Your task to perform on an android device: toggle sleep mode Image 0: 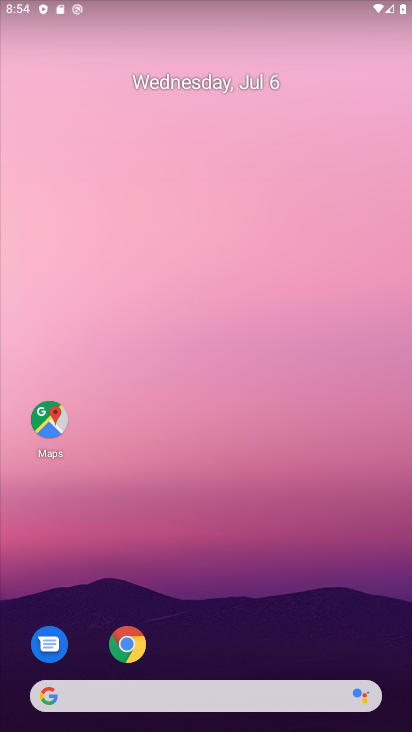
Step 0: drag from (252, 712) to (280, 119)
Your task to perform on an android device: toggle sleep mode Image 1: 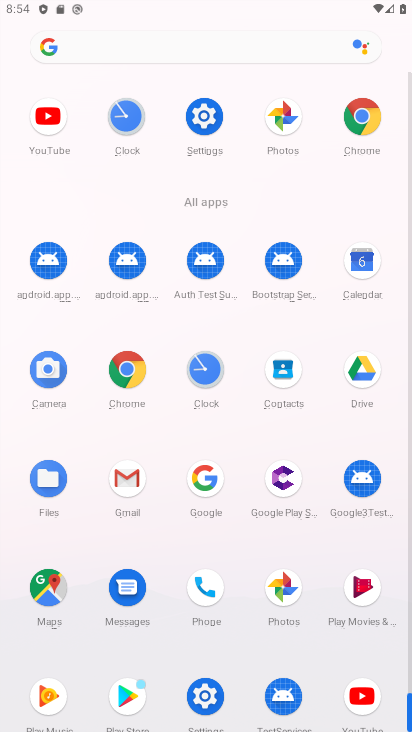
Step 1: click (200, 140)
Your task to perform on an android device: toggle sleep mode Image 2: 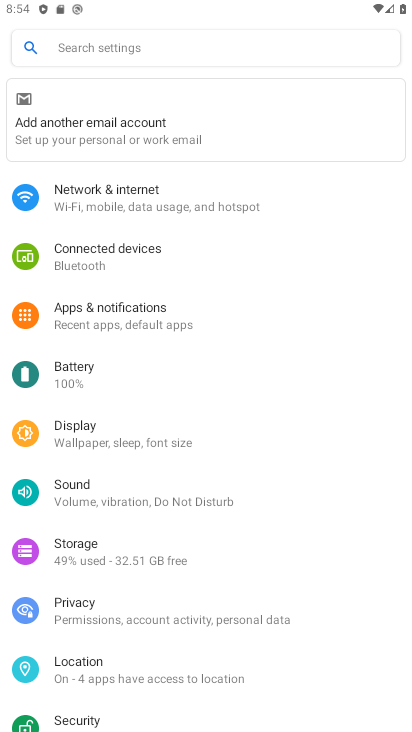
Step 2: click (146, 442)
Your task to perform on an android device: toggle sleep mode Image 3: 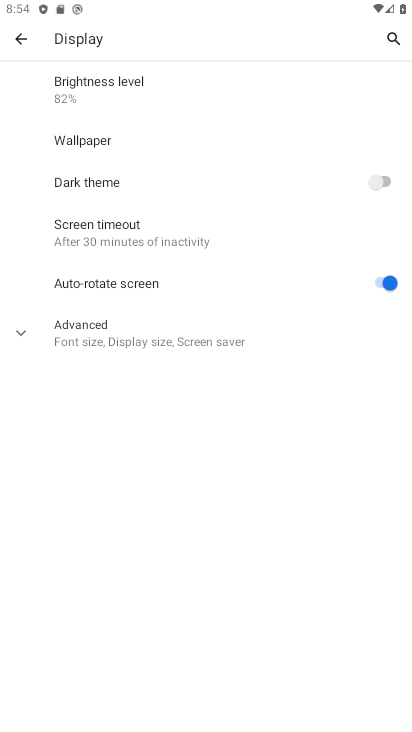
Step 3: drag from (154, 447) to (146, 363)
Your task to perform on an android device: toggle sleep mode Image 4: 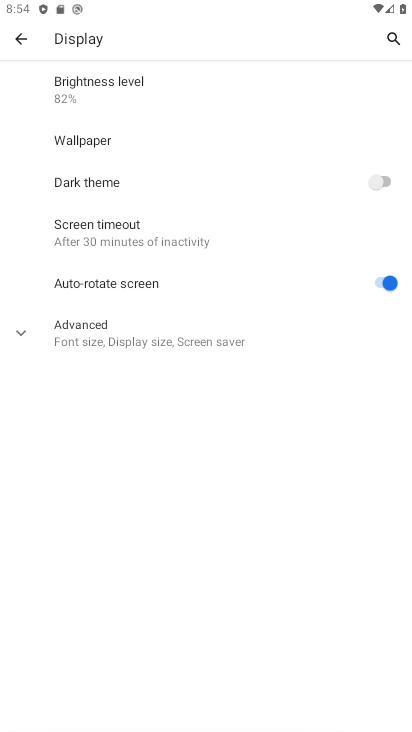
Step 4: click (165, 328)
Your task to perform on an android device: toggle sleep mode Image 5: 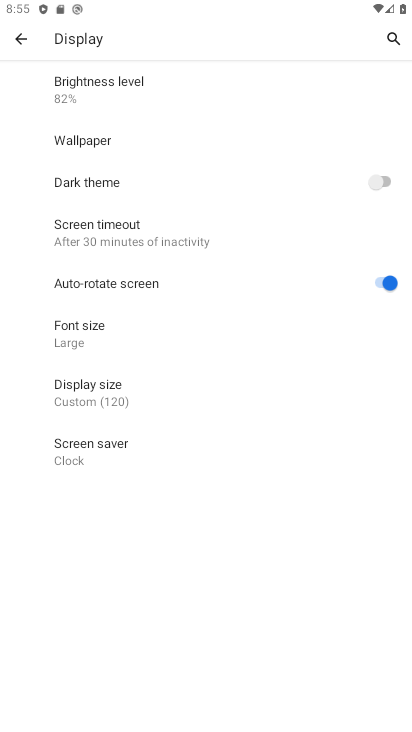
Step 5: task complete